Your task to perform on an android device: turn off wifi Image 0: 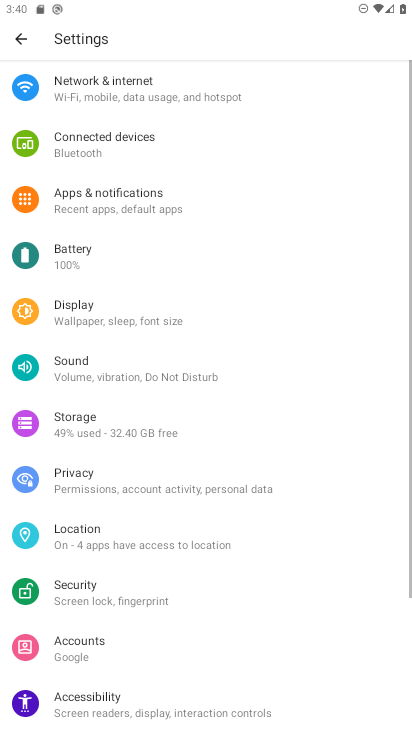
Step 0: drag from (210, 177) to (244, 578)
Your task to perform on an android device: turn off wifi Image 1: 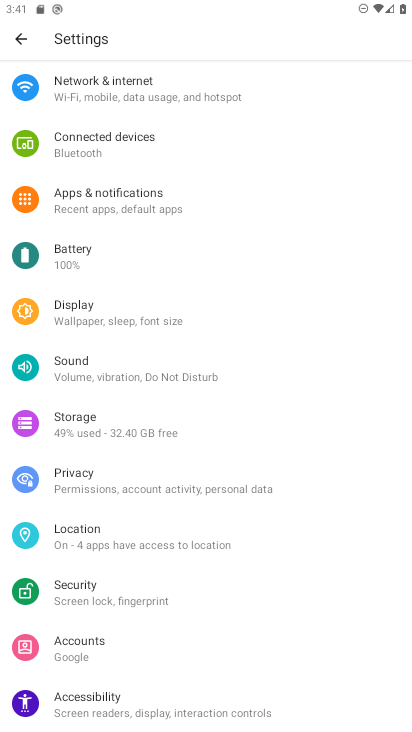
Step 1: click (189, 89)
Your task to perform on an android device: turn off wifi Image 2: 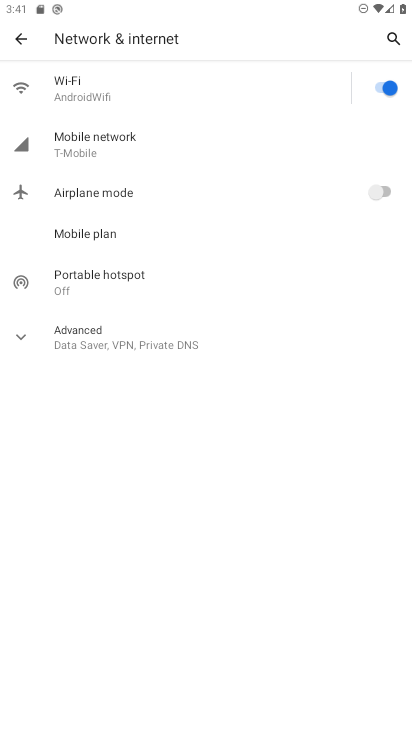
Step 2: click (371, 90)
Your task to perform on an android device: turn off wifi Image 3: 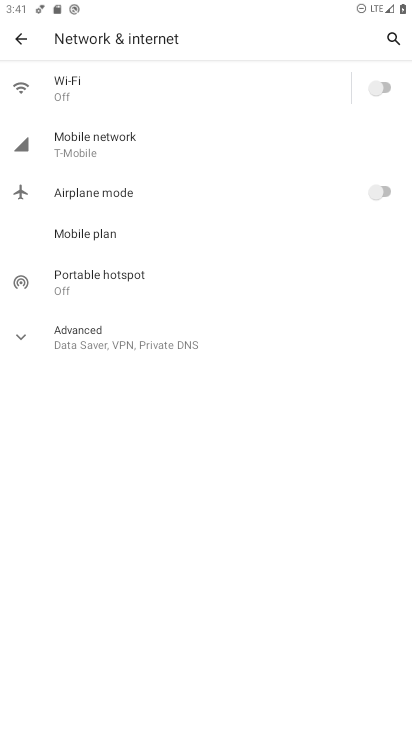
Step 3: task complete